Your task to perform on an android device: clear history in the chrome app Image 0: 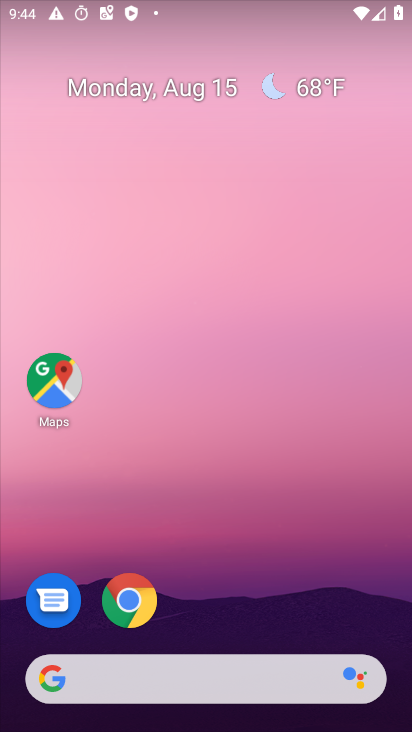
Step 0: drag from (223, 644) to (232, 15)
Your task to perform on an android device: clear history in the chrome app Image 1: 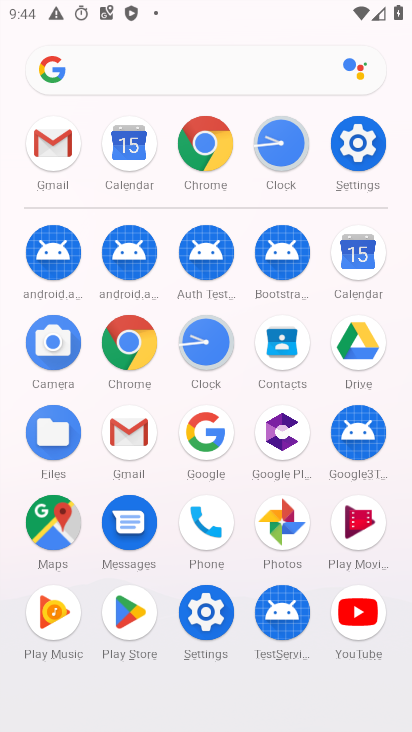
Step 1: click (131, 340)
Your task to perform on an android device: clear history in the chrome app Image 2: 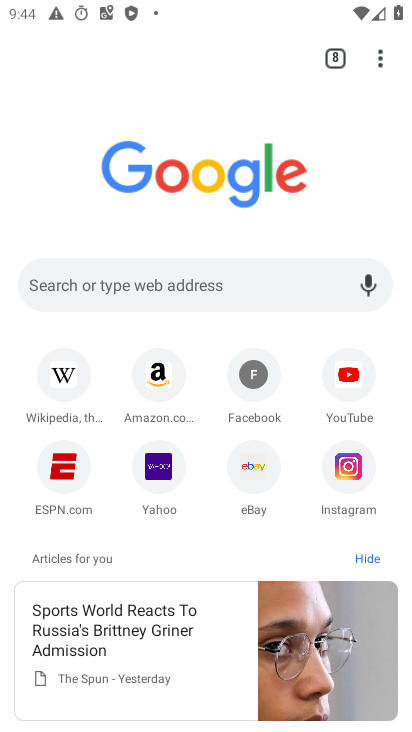
Step 2: drag from (379, 64) to (246, 341)
Your task to perform on an android device: clear history in the chrome app Image 3: 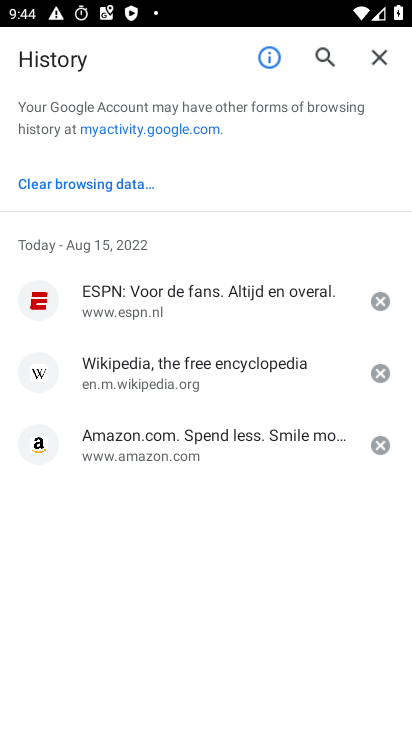
Step 3: click (94, 181)
Your task to perform on an android device: clear history in the chrome app Image 4: 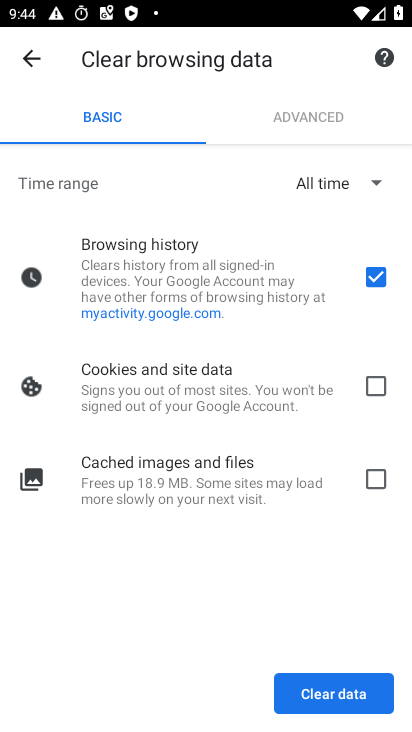
Step 4: click (328, 693)
Your task to perform on an android device: clear history in the chrome app Image 5: 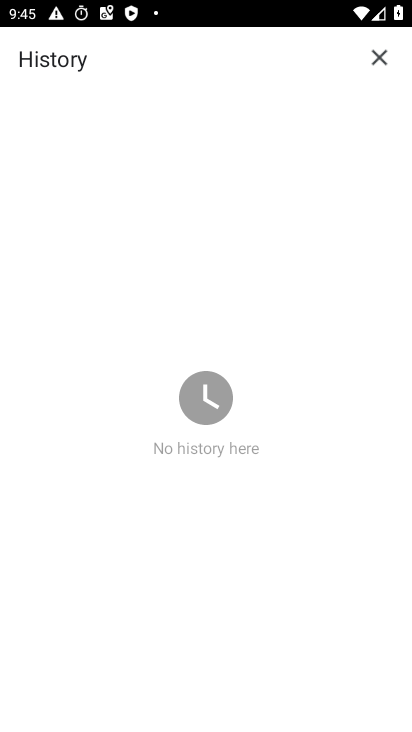
Step 5: task complete